Your task to perform on an android device: Go to ESPN.com Image 0: 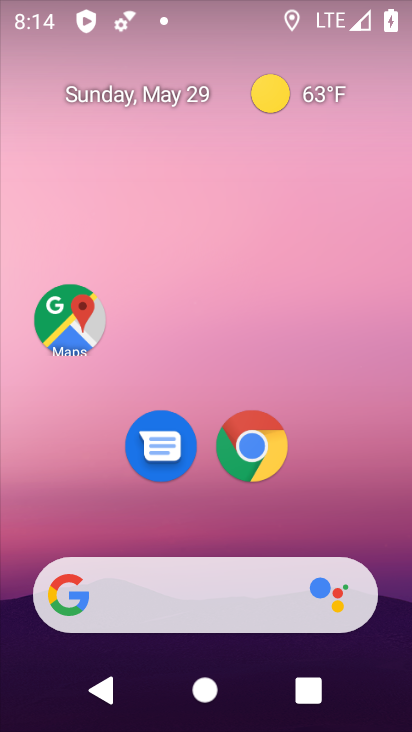
Step 0: click (232, 457)
Your task to perform on an android device: Go to ESPN.com Image 1: 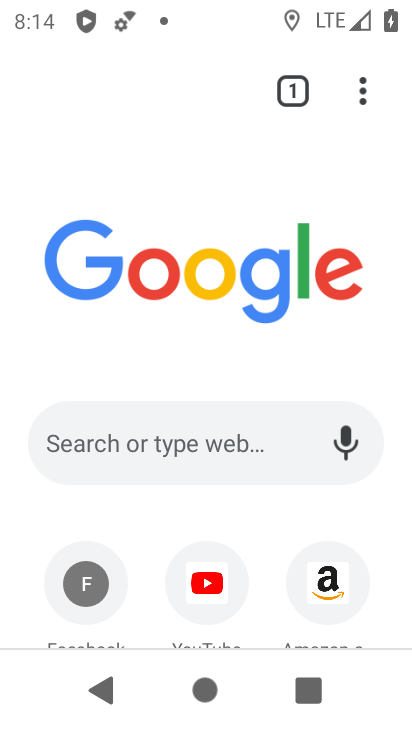
Step 1: drag from (195, 493) to (200, 318)
Your task to perform on an android device: Go to ESPN.com Image 2: 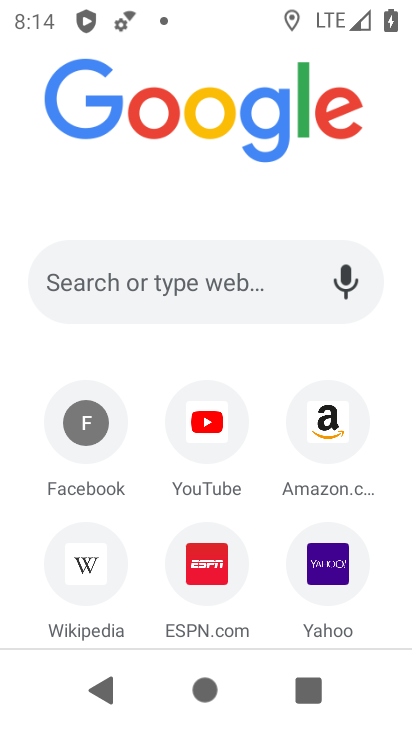
Step 2: click (197, 542)
Your task to perform on an android device: Go to ESPN.com Image 3: 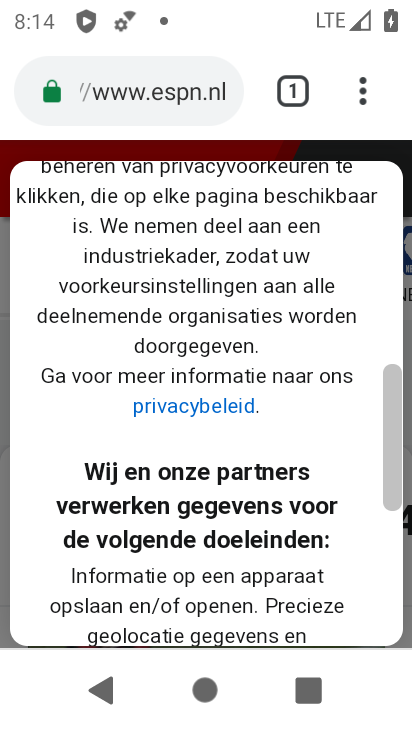
Step 3: task complete